Your task to perform on an android device: See recent photos Image 0: 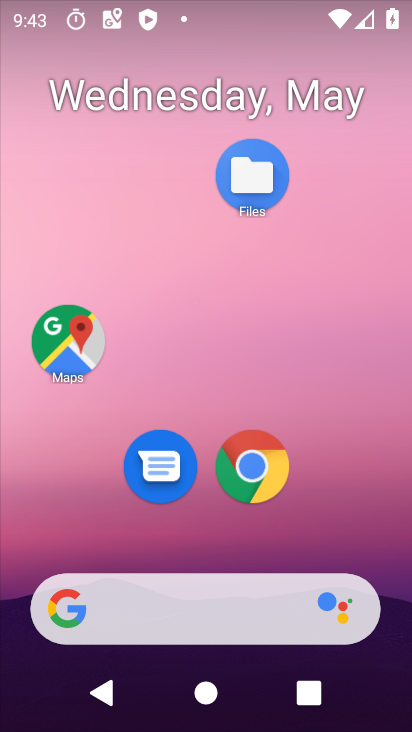
Step 0: drag from (274, 652) to (201, 67)
Your task to perform on an android device: See recent photos Image 1: 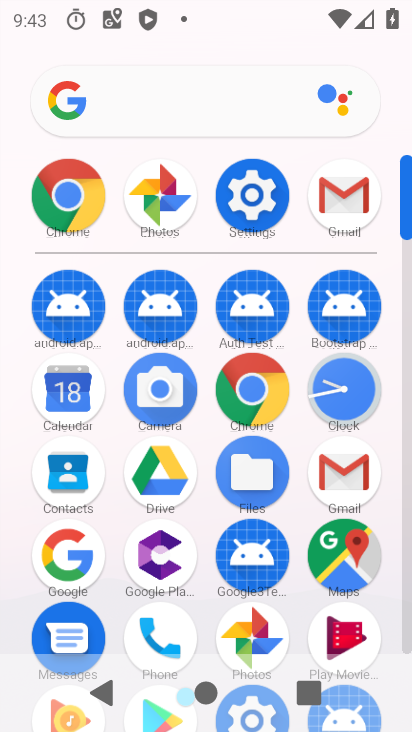
Step 1: click (161, 194)
Your task to perform on an android device: See recent photos Image 2: 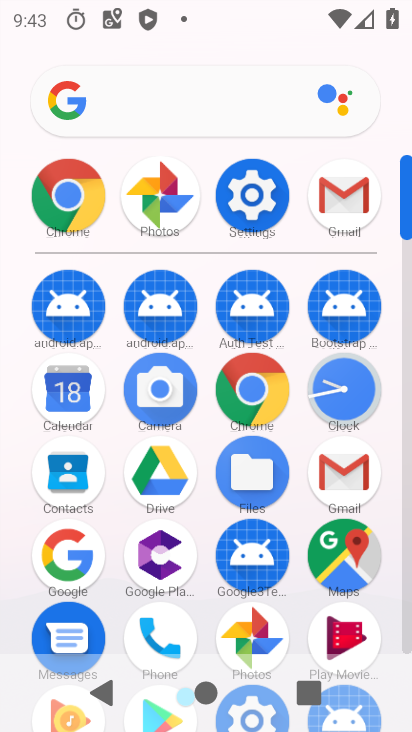
Step 2: click (161, 193)
Your task to perform on an android device: See recent photos Image 3: 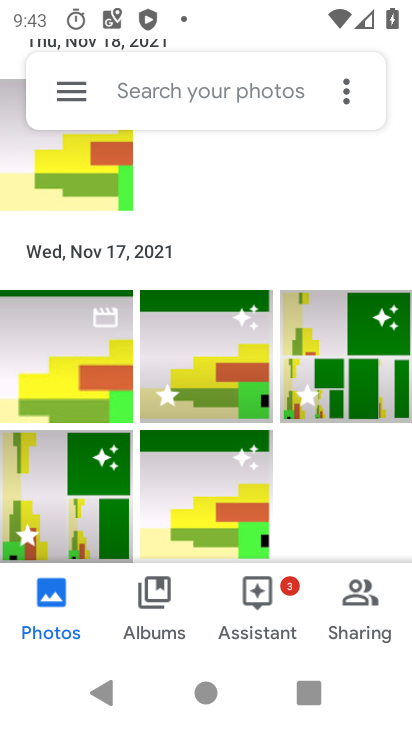
Step 3: press back button
Your task to perform on an android device: See recent photos Image 4: 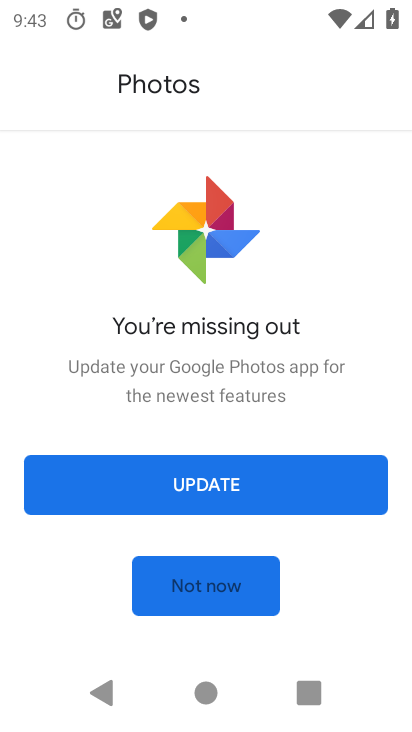
Step 4: click (201, 477)
Your task to perform on an android device: See recent photos Image 5: 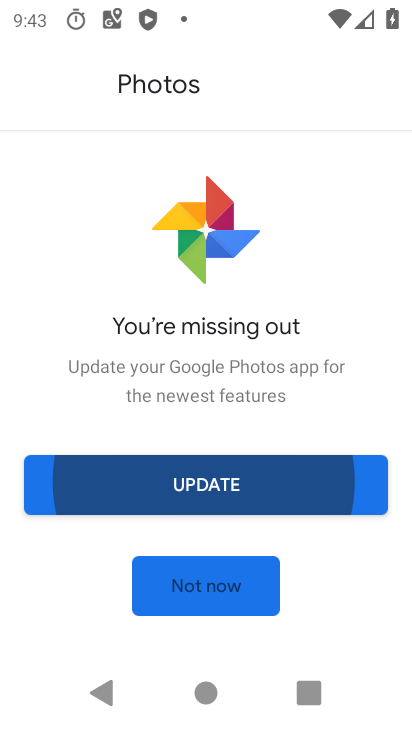
Step 5: click (201, 477)
Your task to perform on an android device: See recent photos Image 6: 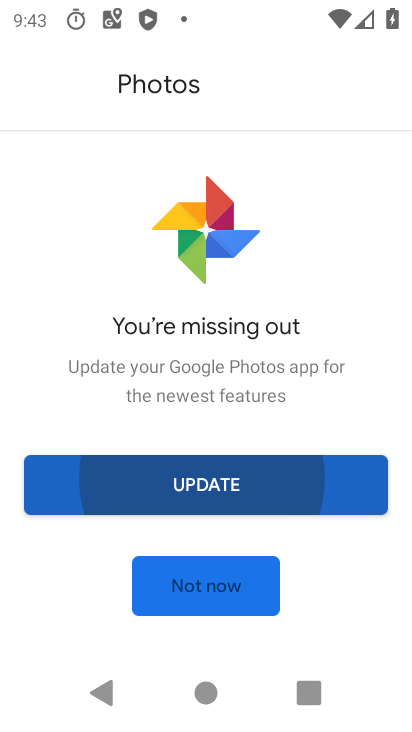
Step 6: click (201, 477)
Your task to perform on an android device: See recent photos Image 7: 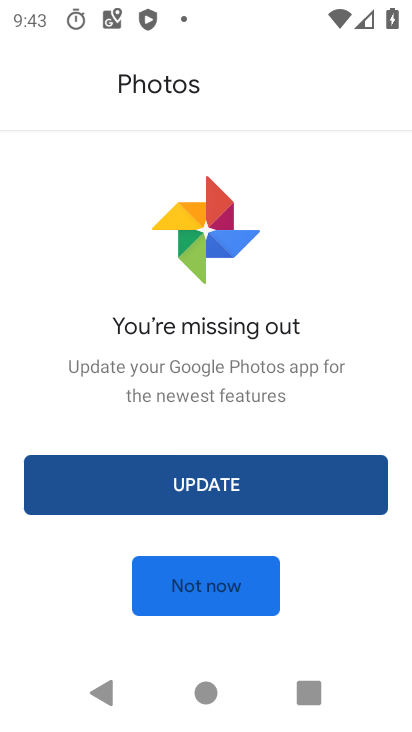
Step 7: click (201, 479)
Your task to perform on an android device: See recent photos Image 8: 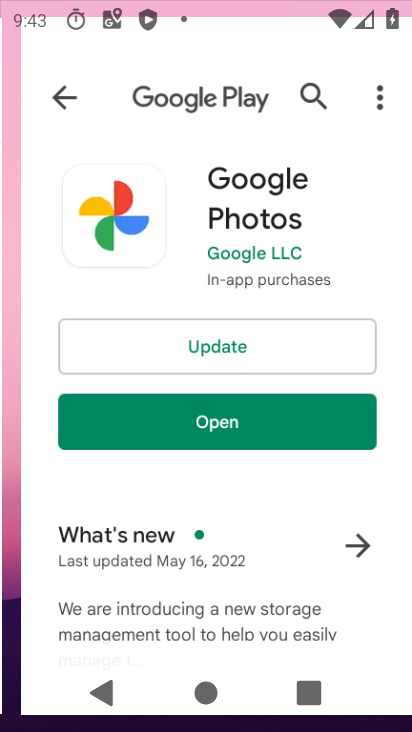
Step 8: click (201, 479)
Your task to perform on an android device: See recent photos Image 9: 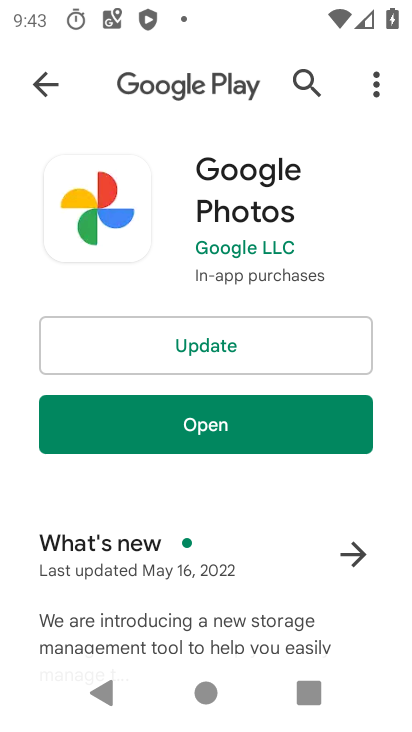
Step 9: click (205, 341)
Your task to perform on an android device: See recent photos Image 10: 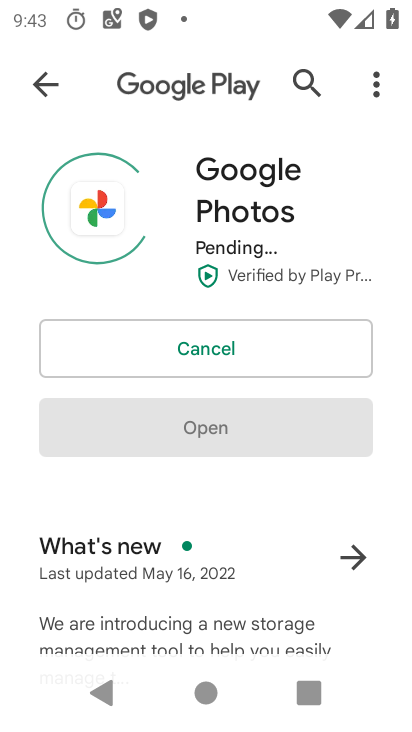
Step 10: click (205, 341)
Your task to perform on an android device: See recent photos Image 11: 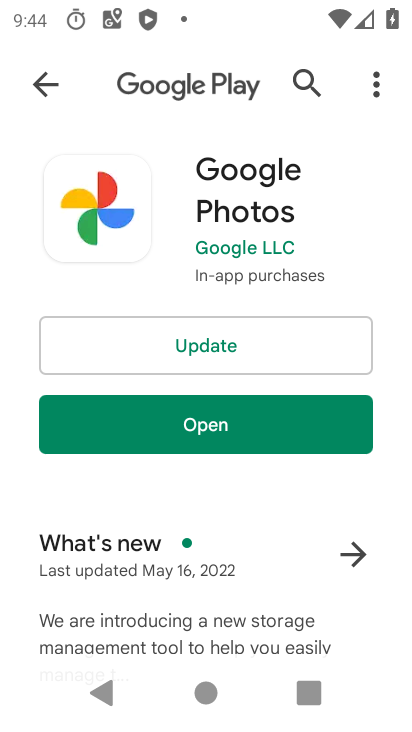
Step 11: click (190, 416)
Your task to perform on an android device: See recent photos Image 12: 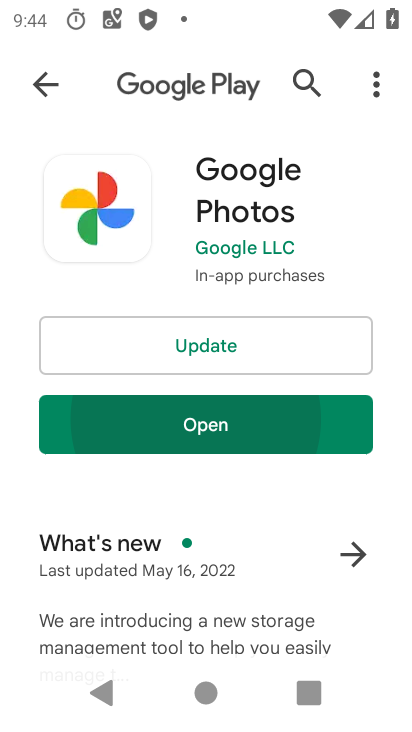
Step 12: click (191, 417)
Your task to perform on an android device: See recent photos Image 13: 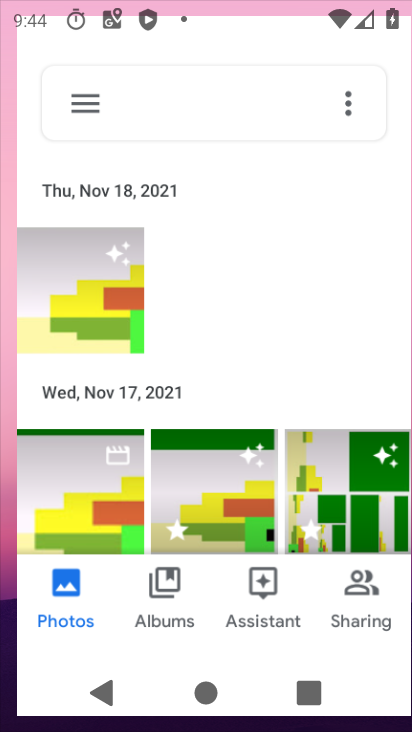
Step 13: click (200, 418)
Your task to perform on an android device: See recent photos Image 14: 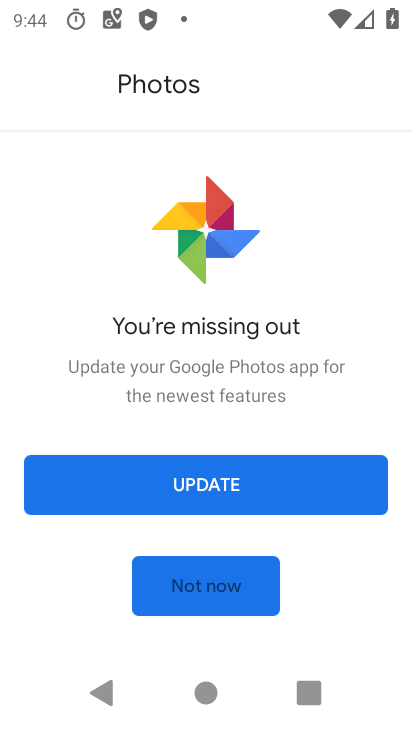
Step 14: task complete